Your task to perform on an android device: Is it going to rain tomorrow? Image 0: 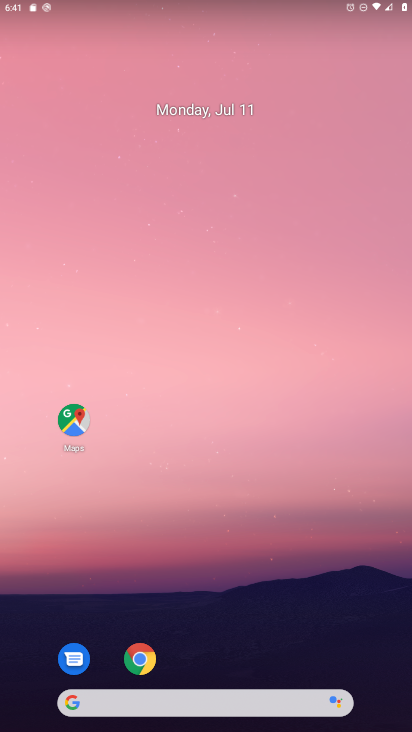
Step 0: drag from (4, 258) to (217, 263)
Your task to perform on an android device: Is it going to rain tomorrow? Image 1: 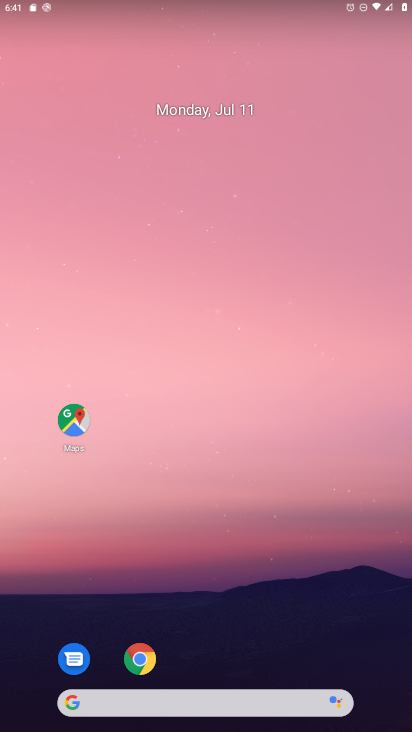
Step 1: task complete